Your task to perform on an android device: open a new tab in the chrome app Image 0: 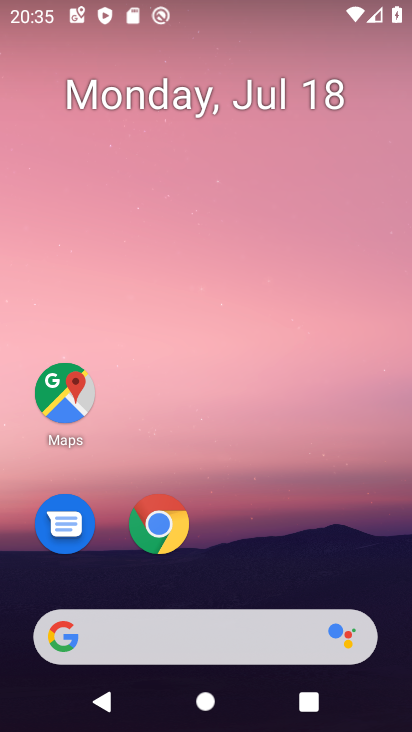
Step 0: click (172, 526)
Your task to perform on an android device: open a new tab in the chrome app Image 1: 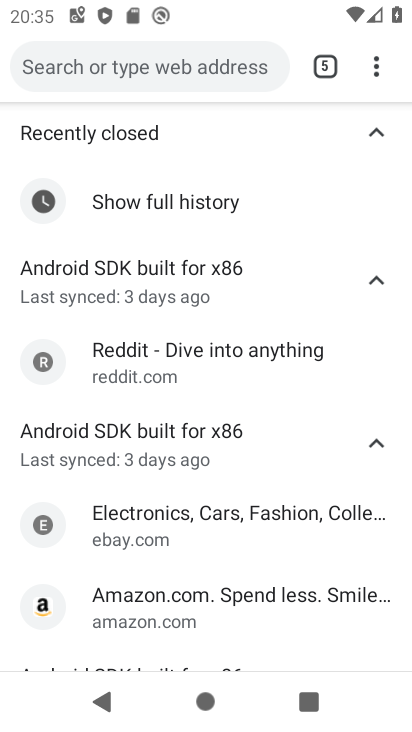
Step 1: click (373, 68)
Your task to perform on an android device: open a new tab in the chrome app Image 2: 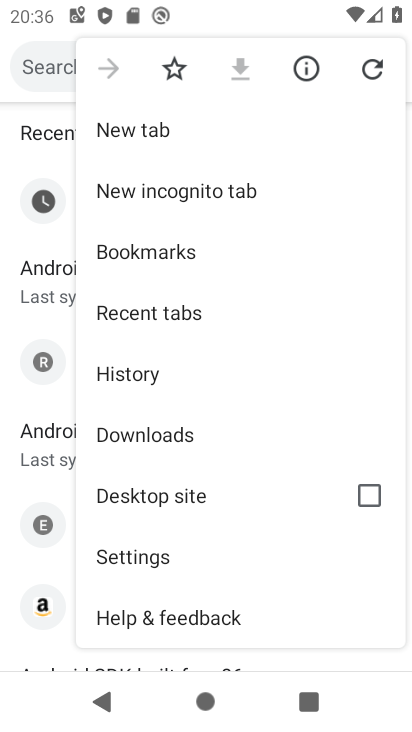
Step 2: click (247, 130)
Your task to perform on an android device: open a new tab in the chrome app Image 3: 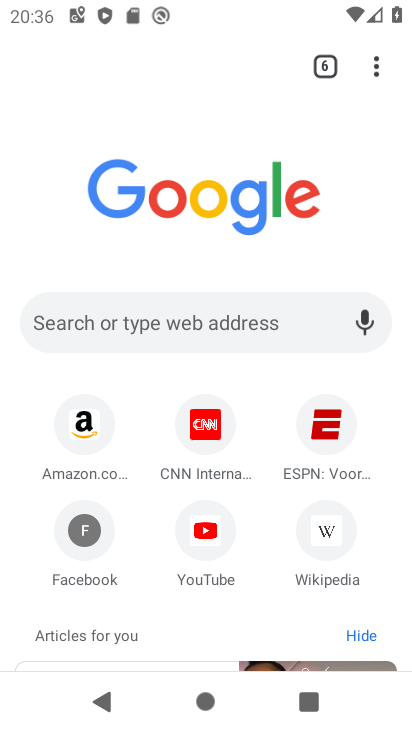
Step 3: task complete